Your task to perform on an android device: Open the calendar app, open the side menu, and click the "Day" option Image 0: 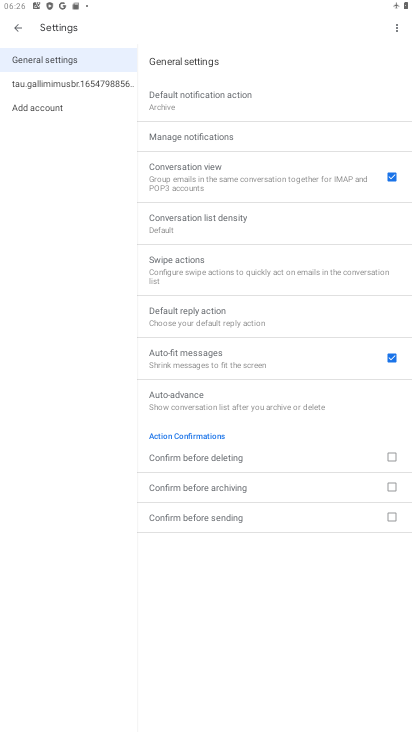
Step 0: press home button
Your task to perform on an android device: Open the calendar app, open the side menu, and click the "Day" option Image 1: 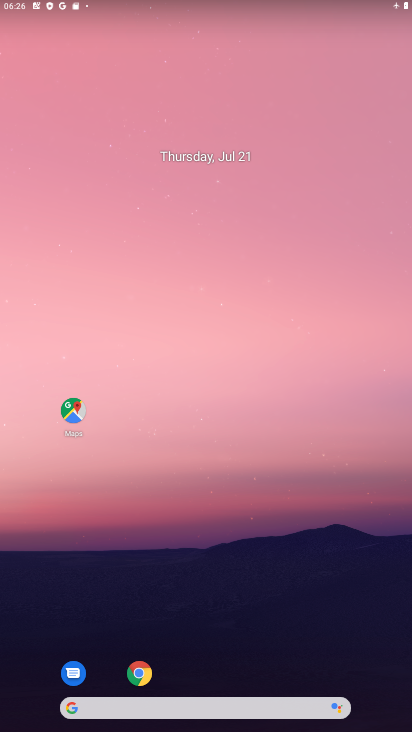
Step 1: drag from (204, 650) to (289, 53)
Your task to perform on an android device: Open the calendar app, open the side menu, and click the "Day" option Image 2: 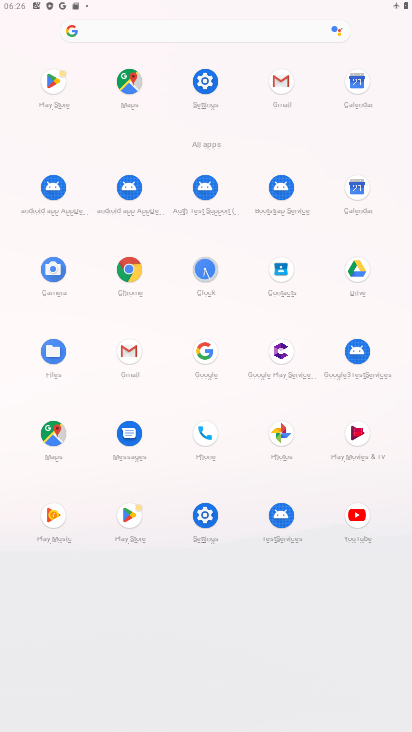
Step 2: click (358, 200)
Your task to perform on an android device: Open the calendar app, open the side menu, and click the "Day" option Image 3: 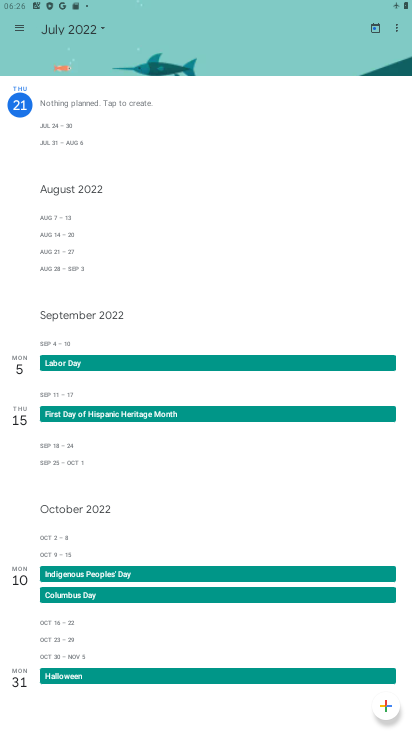
Step 3: click (18, 32)
Your task to perform on an android device: Open the calendar app, open the side menu, and click the "Day" option Image 4: 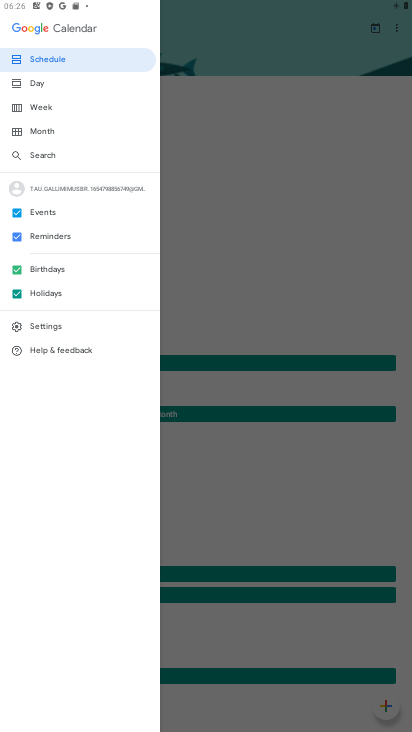
Step 4: click (33, 82)
Your task to perform on an android device: Open the calendar app, open the side menu, and click the "Day" option Image 5: 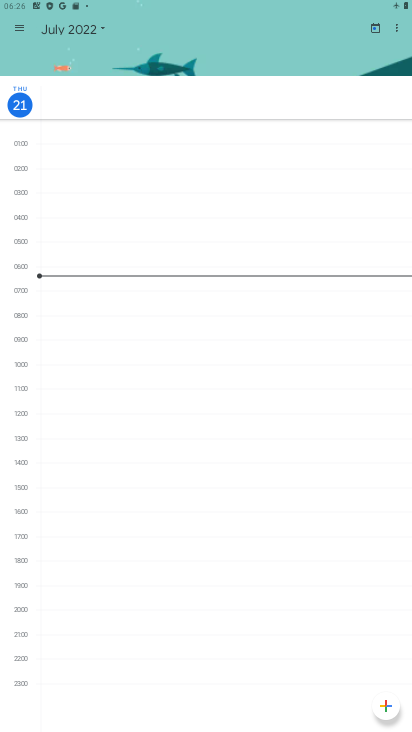
Step 5: task complete